Your task to perform on an android device: Search for "macbook air" on costco.com, select the first entry, add it to the cart, then select checkout. Image 0: 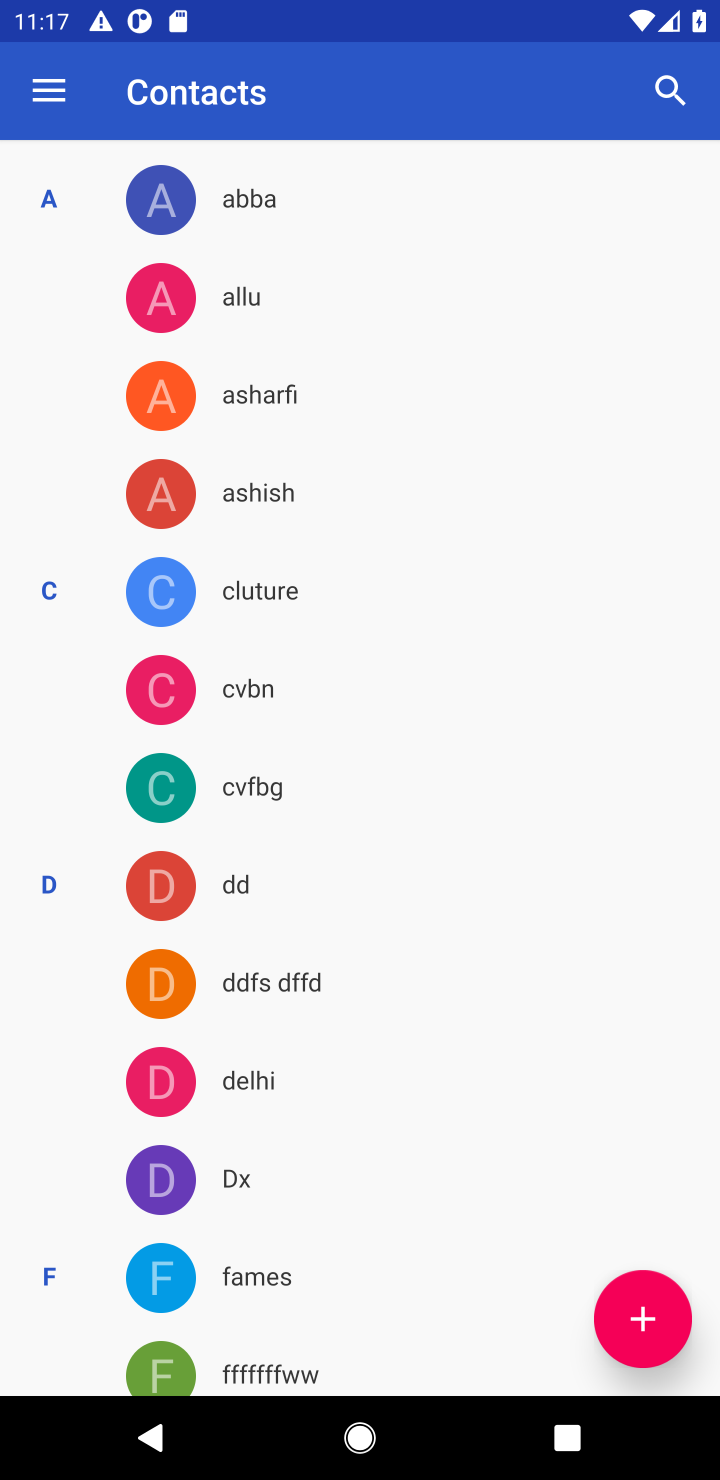
Step 0: press home button
Your task to perform on an android device: Search for "macbook air" on costco.com, select the first entry, add it to the cart, then select checkout. Image 1: 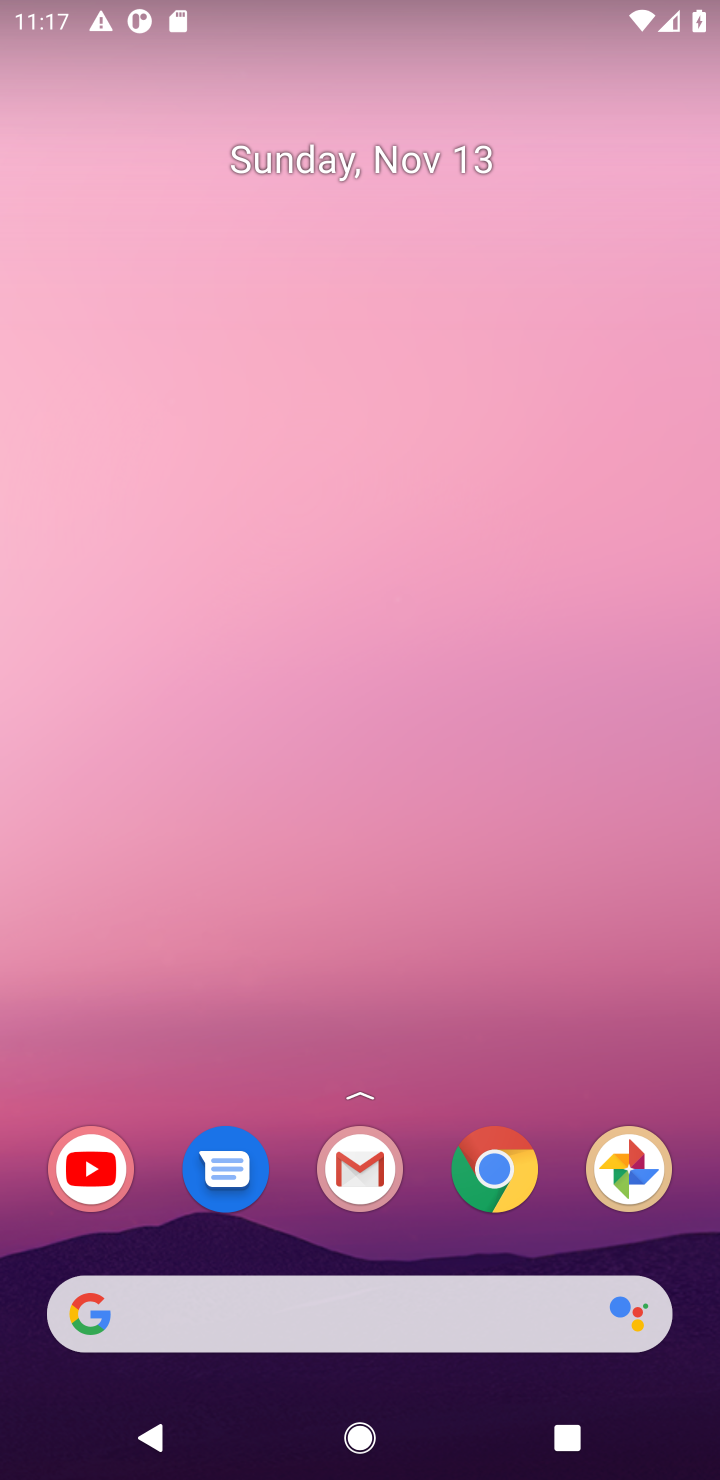
Step 1: drag from (413, 1251) to (384, 255)
Your task to perform on an android device: Search for "macbook air" on costco.com, select the first entry, add it to the cart, then select checkout. Image 2: 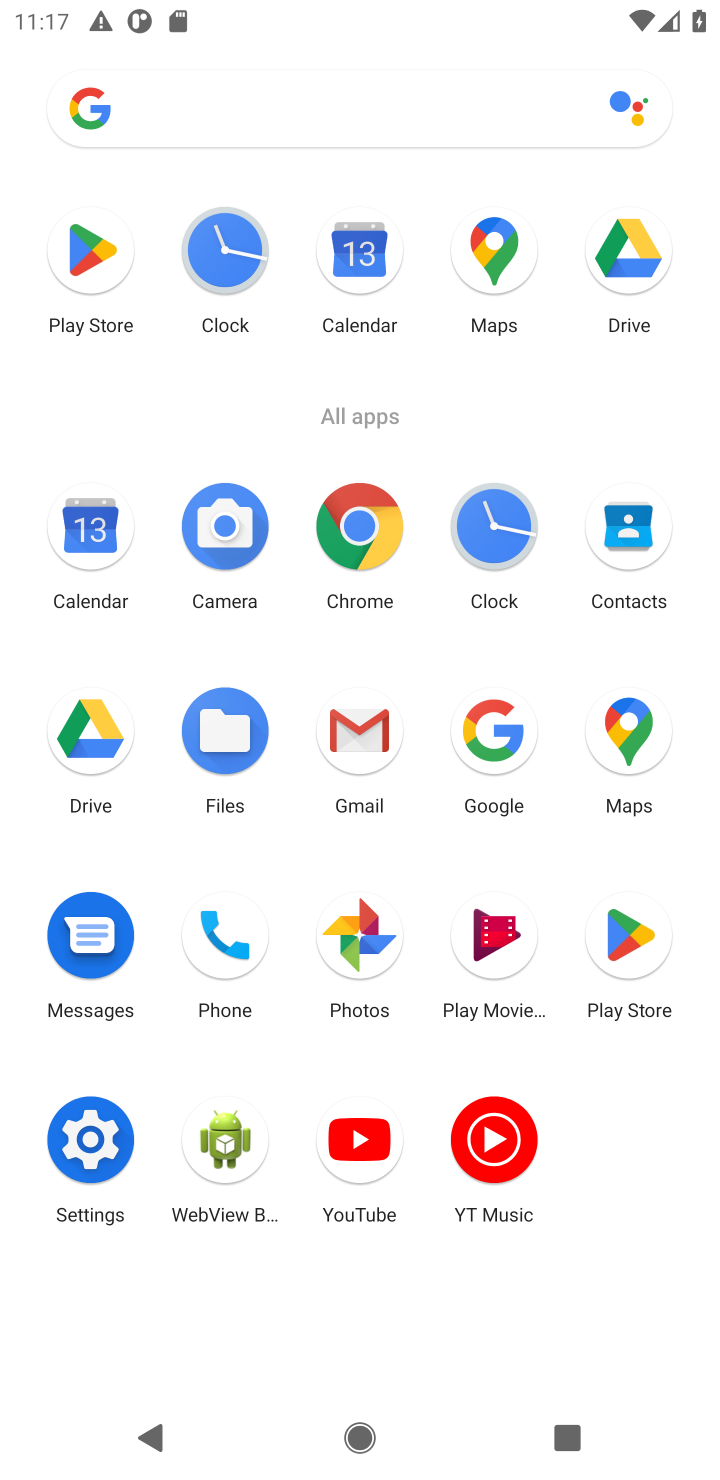
Step 2: click (361, 520)
Your task to perform on an android device: Search for "macbook air" on costco.com, select the first entry, add it to the cart, then select checkout. Image 3: 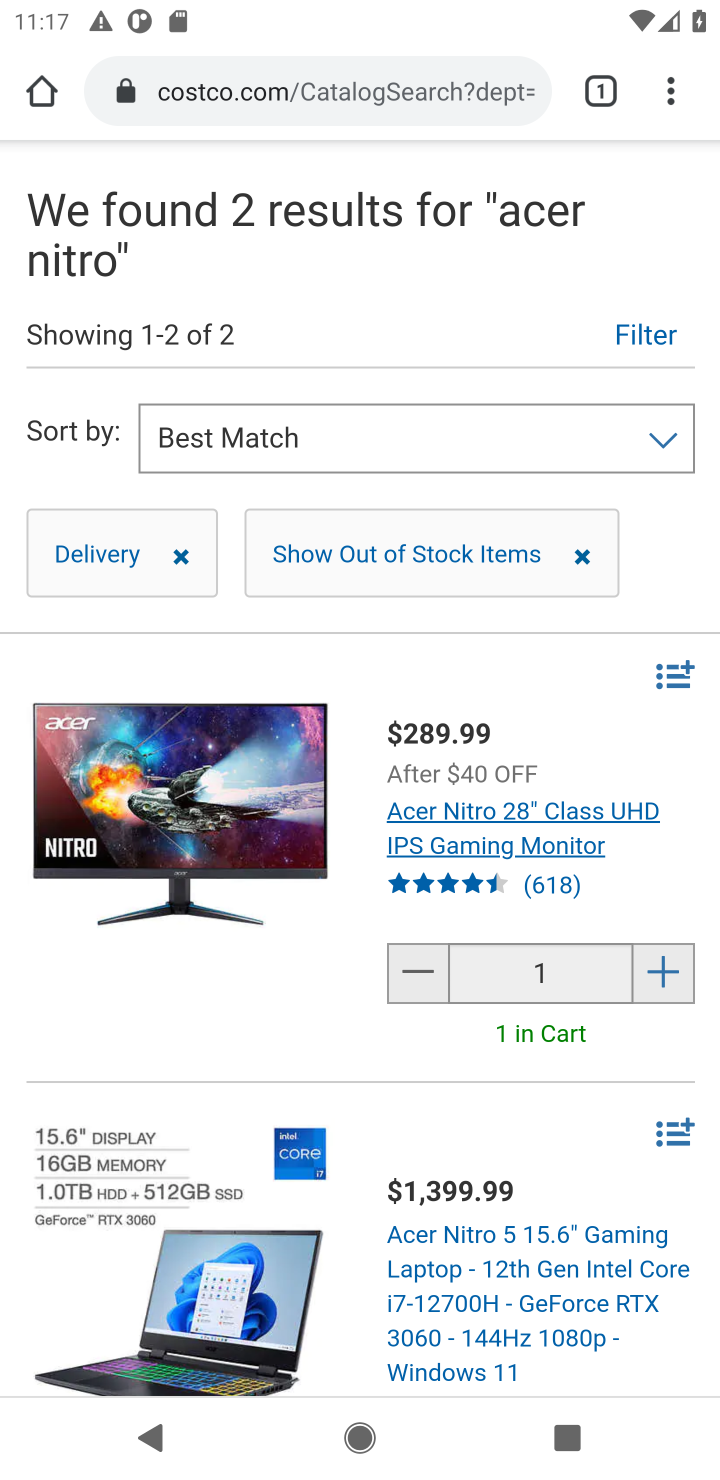
Step 3: click (419, 94)
Your task to perform on an android device: Search for "macbook air" on costco.com, select the first entry, add it to the cart, then select checkout. Image 4: 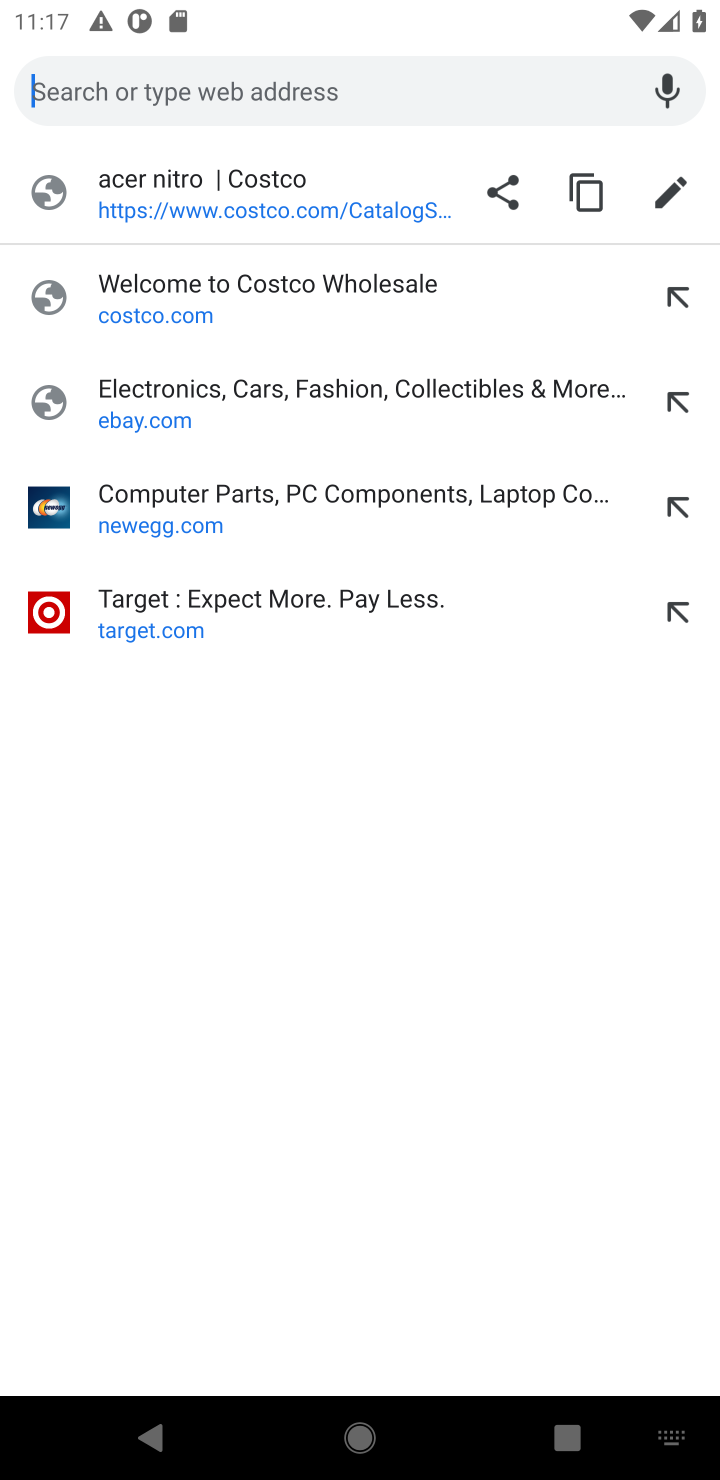
Step 4: type "costco.com"
Your task to perform on an android device: Search for "macbook air" on costco.com, select the first entry, add it to the cart, then select checkout. Image 5: 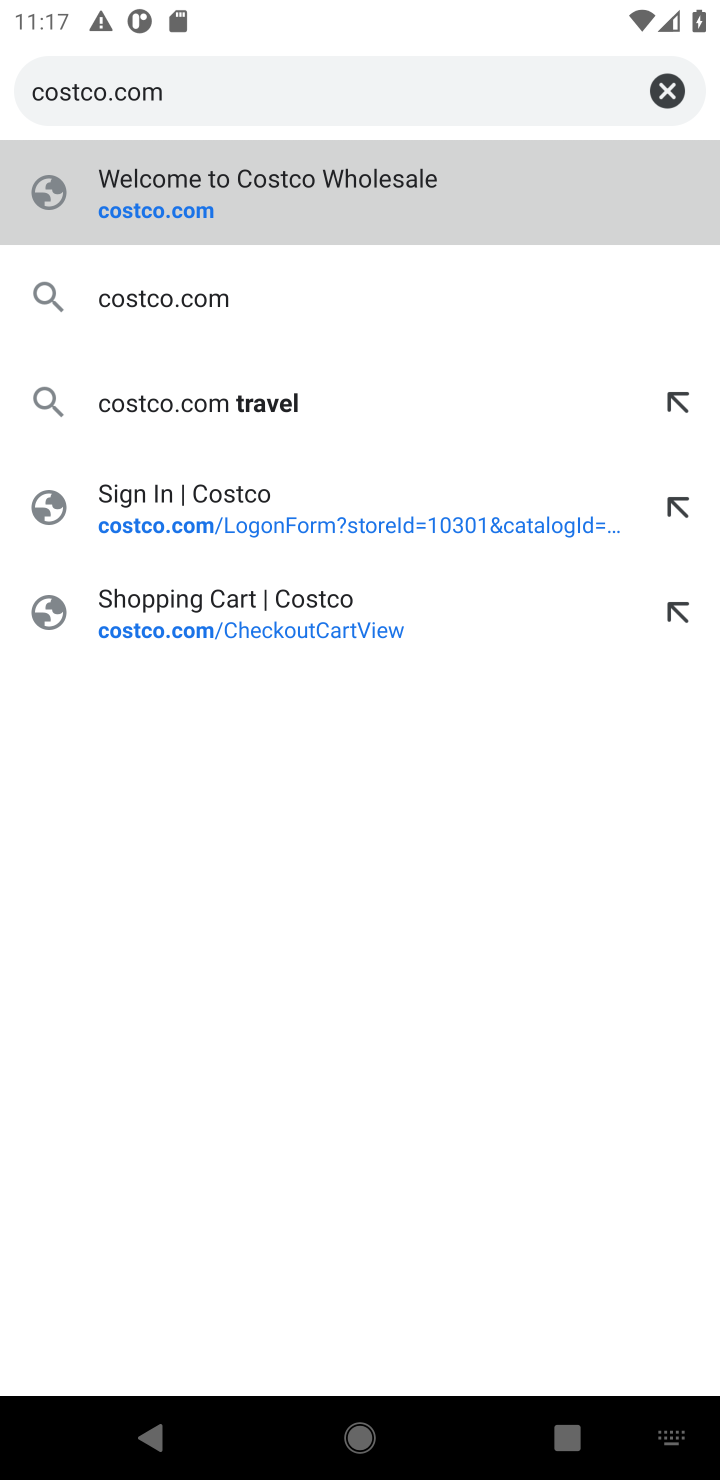
Step 5: press enter
Your task to perform on an android device: Search for "macbook air" on costco.com, select the first entry, add it to the cart, then select checkout. Image 6: 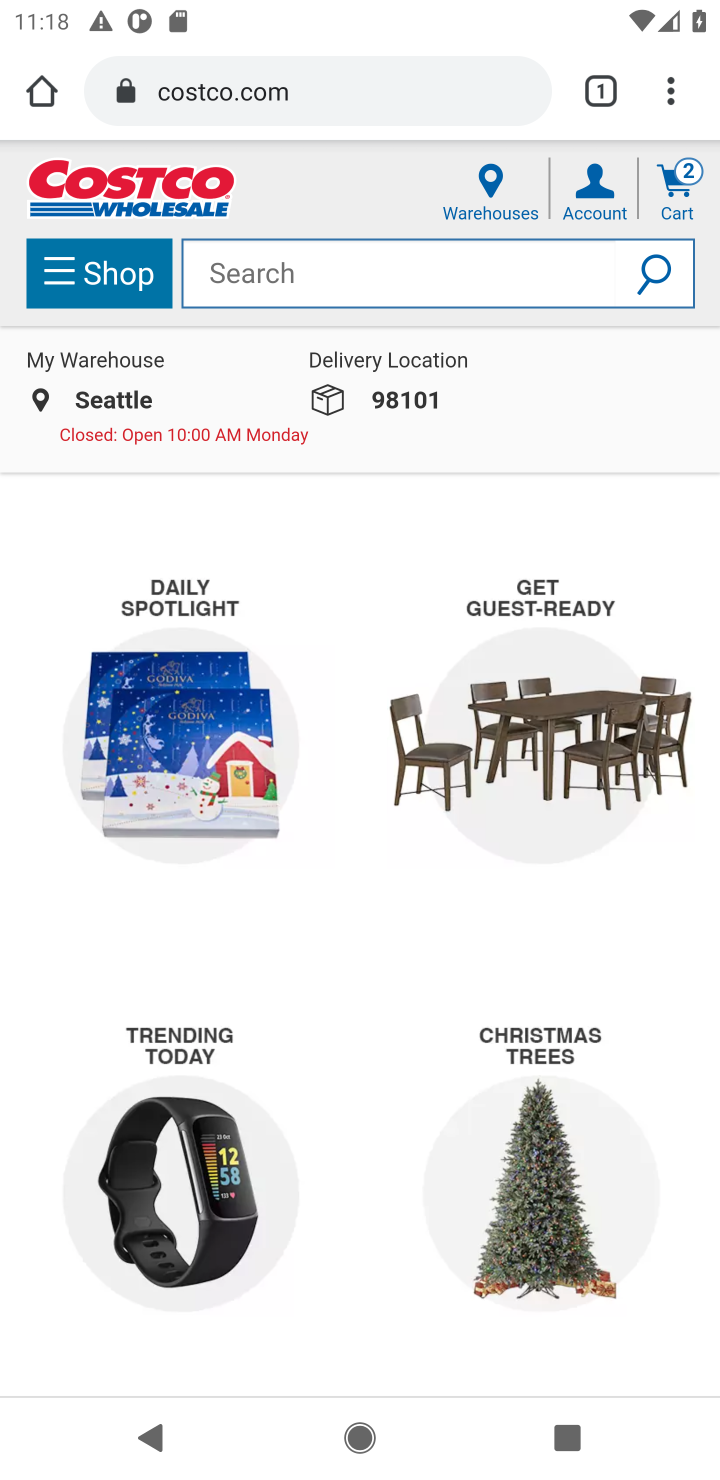
Step 6: click (322, 282)
Your task to perform on an android device: Search for "macbook air" on costco.com, select the first entry, add it to the cart, then select checkout. Image 7: 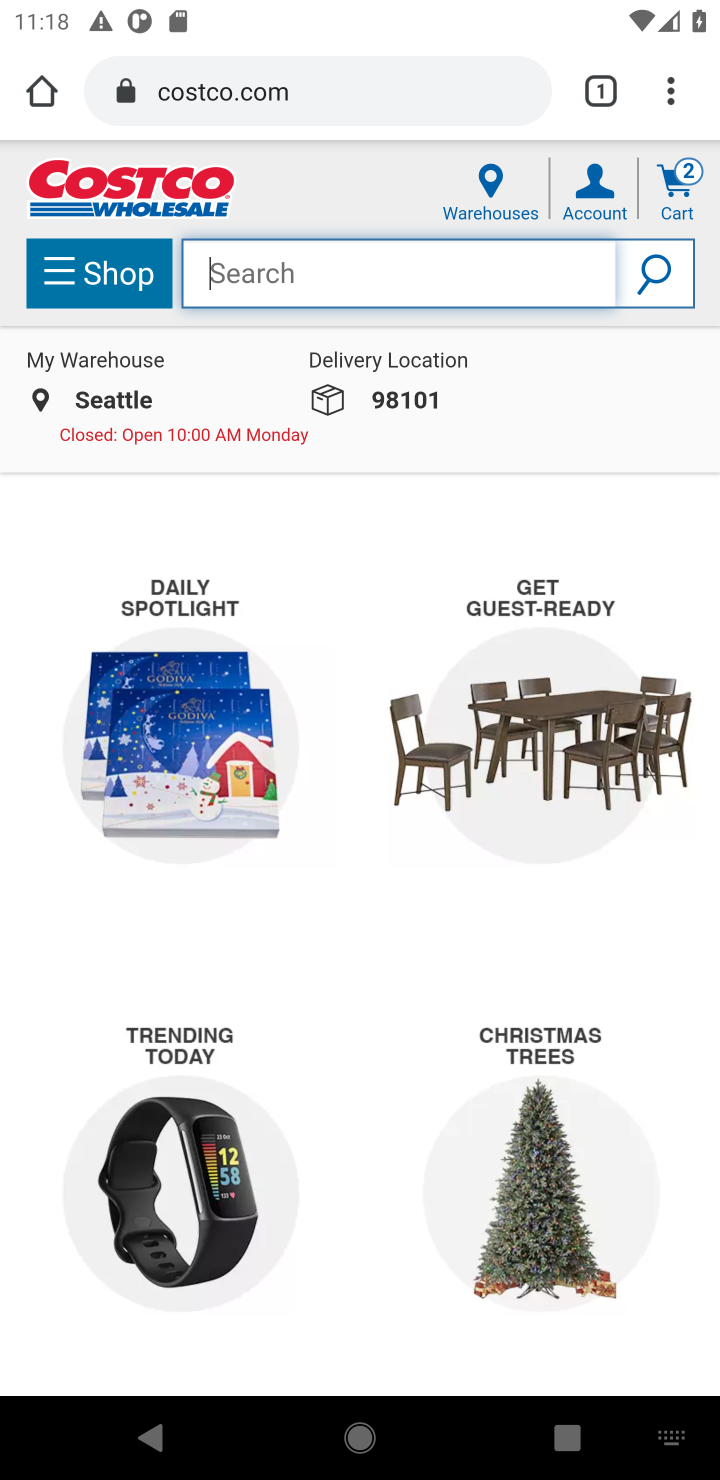
Step 7: type "macbook air"
Your task to perform on an android device: Search for "macbook air" on costco.com, select the first entry, add it to the cart, then select checkout. Image 8: 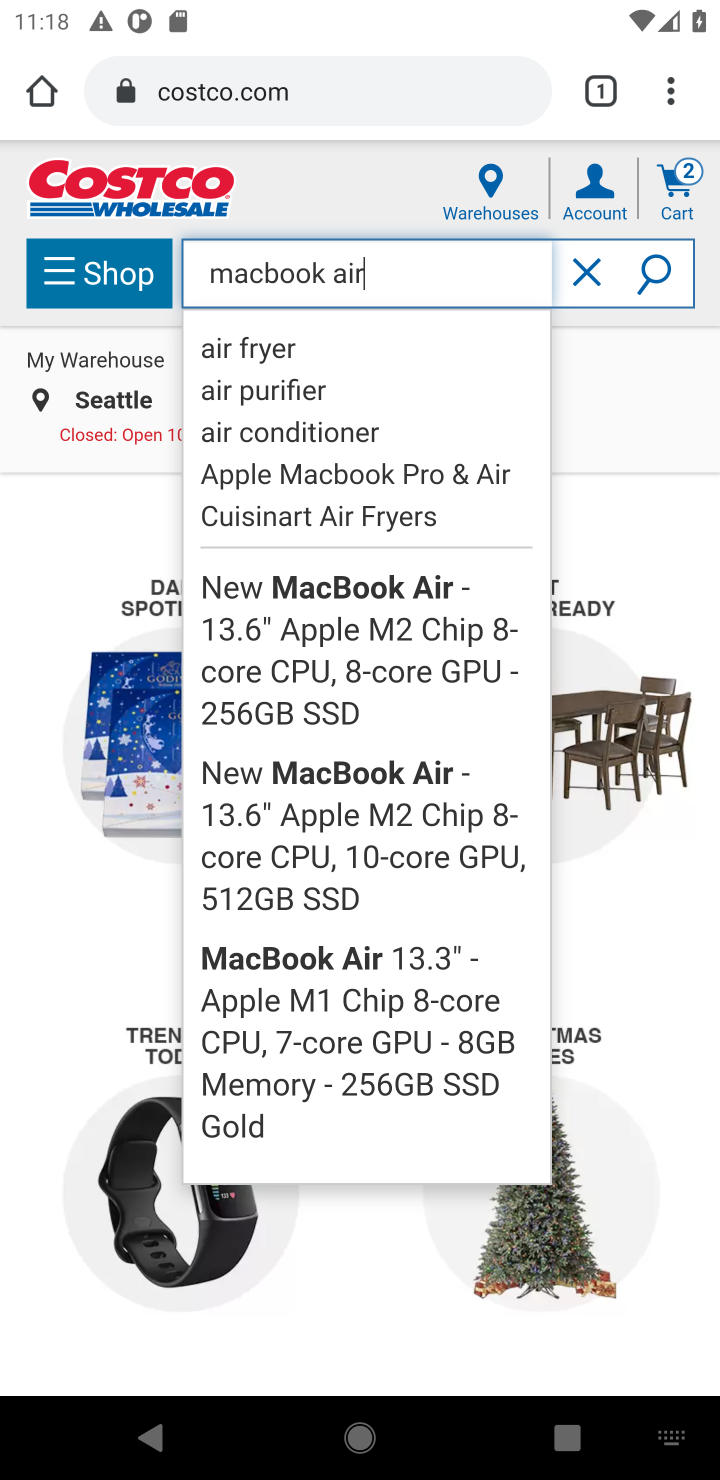
Step 8: press enter
Your task to perform on an android device: Search for "macbook air" on costco.com, select the first entry, add it to the cart, then select checkout. Image 9: 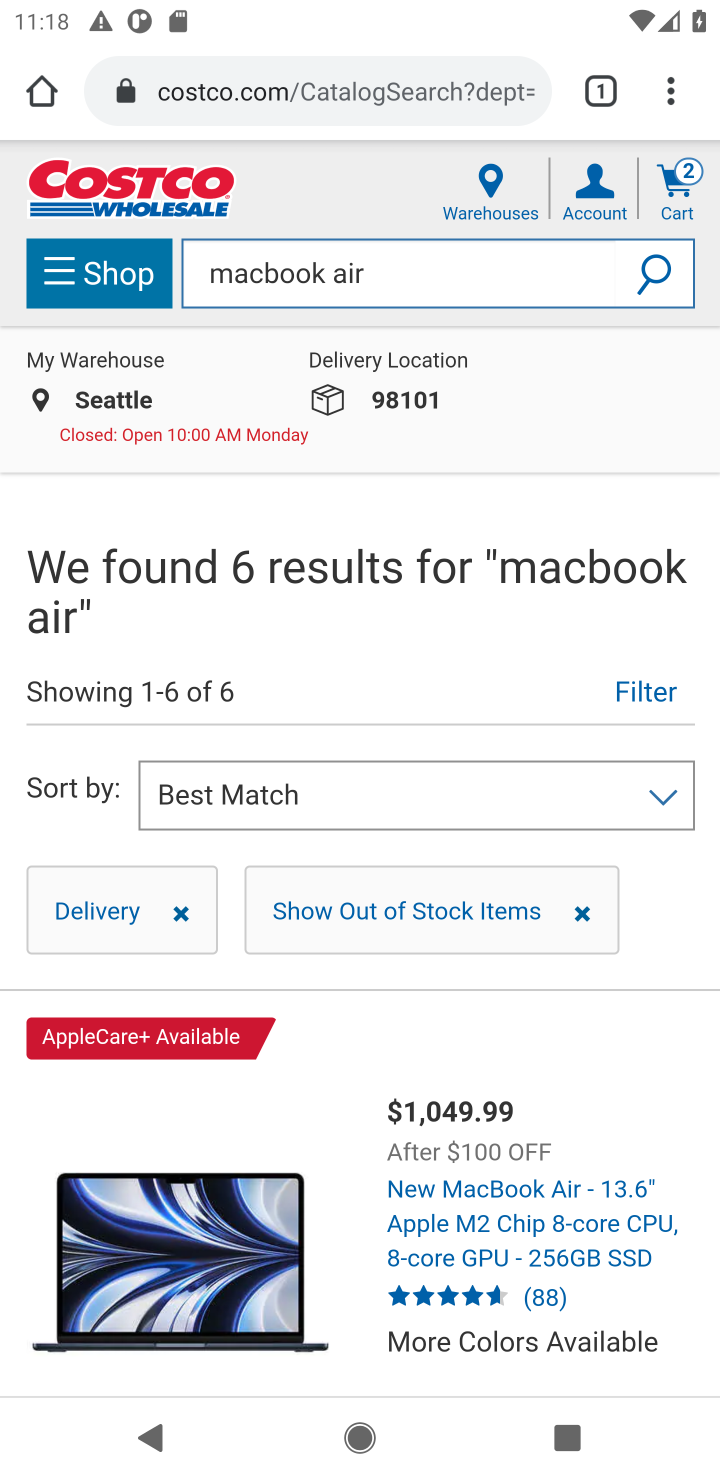
Step 9: click (493, 1249)
Your task to perform on an android device: Search for "macbook air" on costco.com, select the first entry, add it to the cart, then select checkout. Image 10: 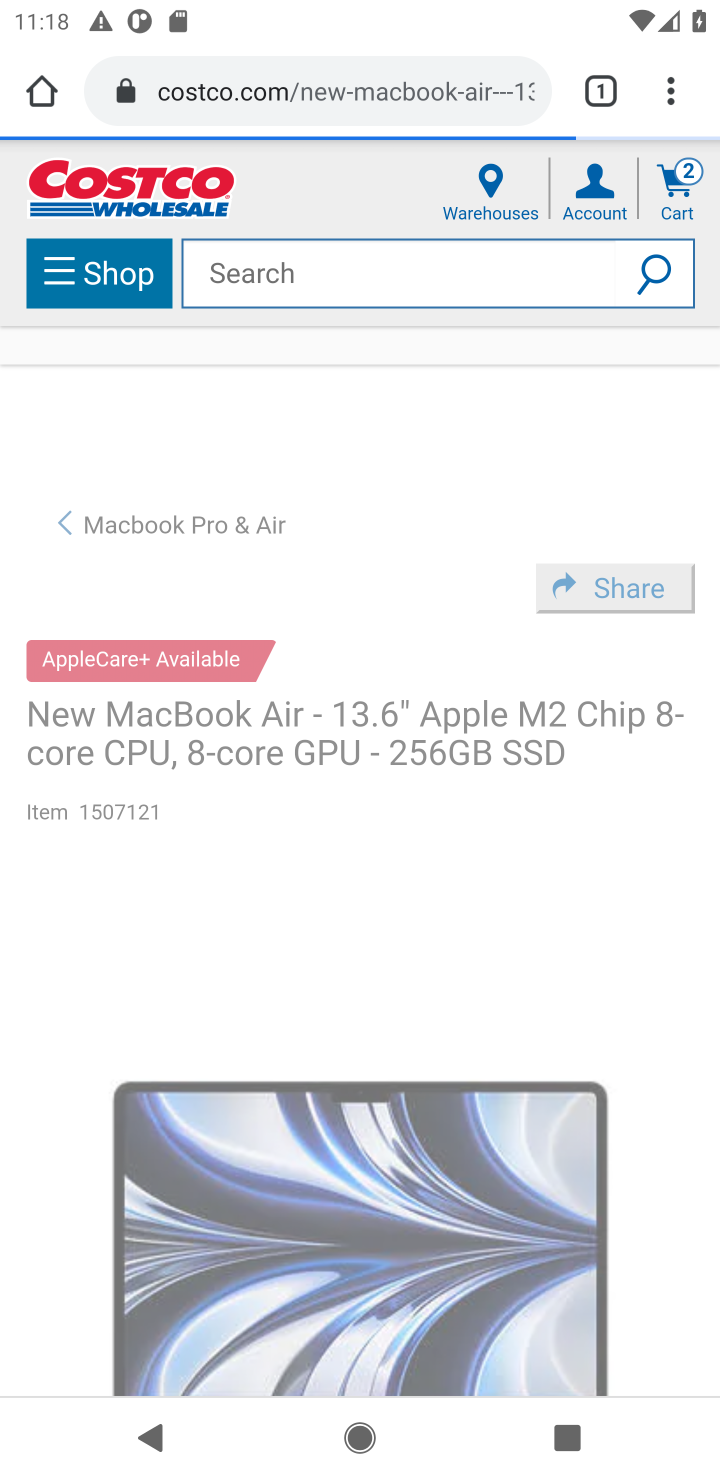
Step 10: drag from (493, 1249) to (463, 196)
Your task to perform on an android device: Search for "macbook air" on costco.com, select the first entry, add it to the cart, then select checkout. Image 11: 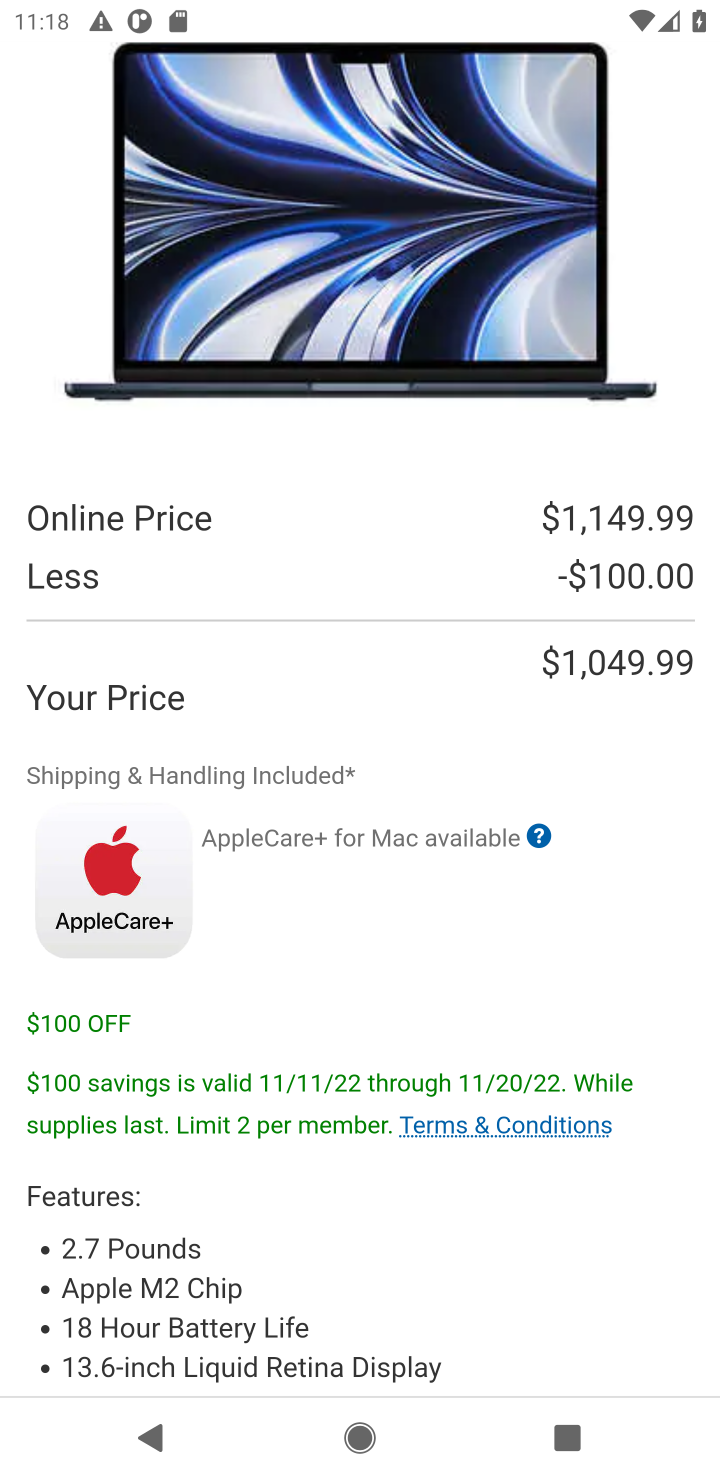
Step 11: drag from (355, 1099) to (413, 186)
Your task to perform on an android device: Search for "macbook air" on costco.com, select the first entry, add it to the cart, then select checkout. Image 12: 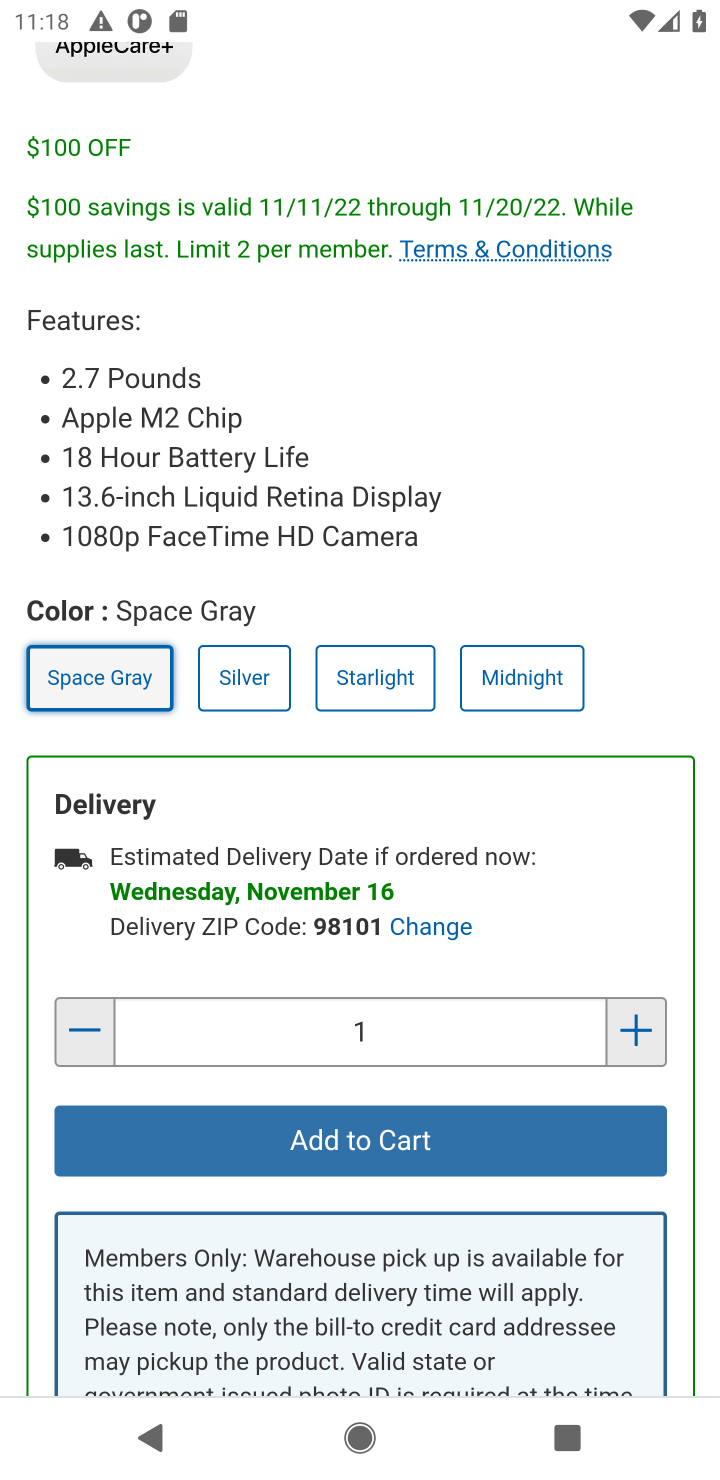
Step 12: click (389, 1132)
Your task to perform on an android device: Search for "macbook air" on costco.com, select the first entry, add it to the cart, then select checkout. Image 13: 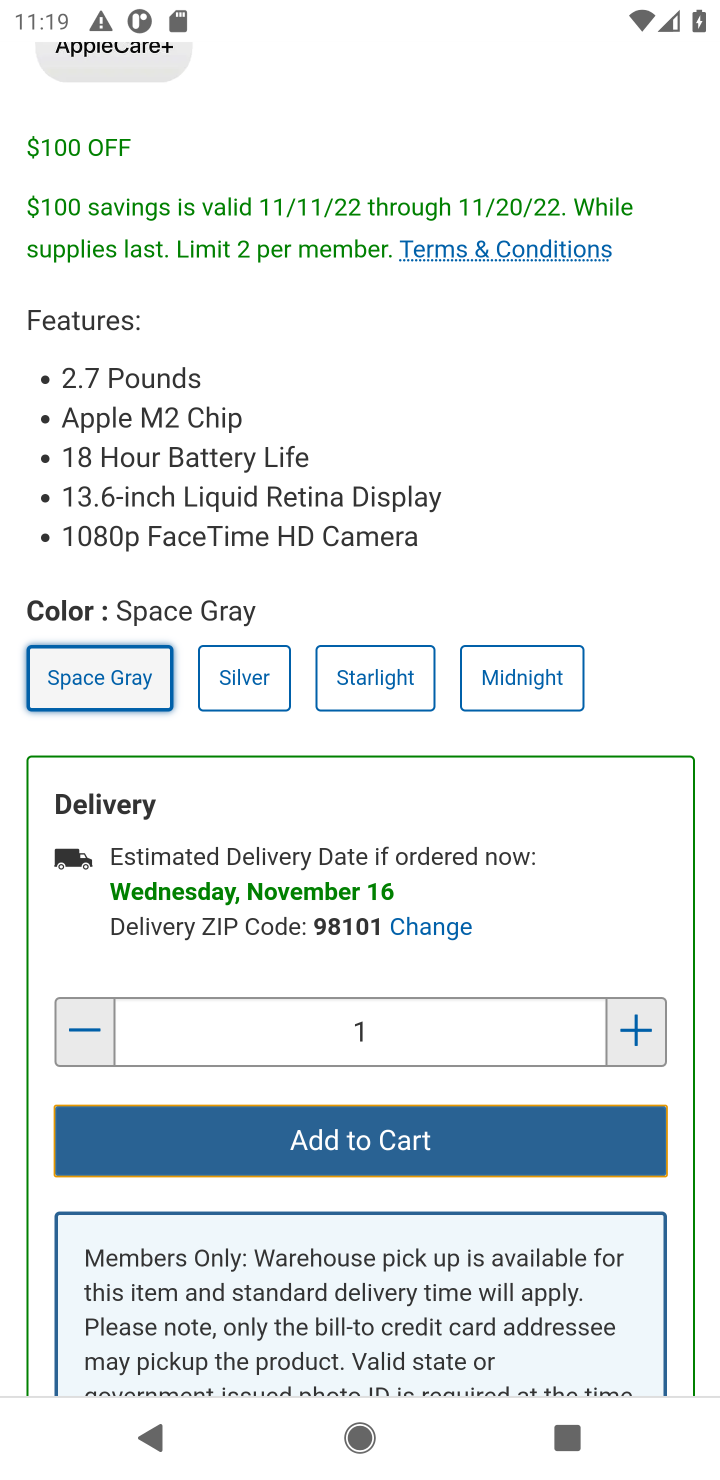
Step 13: click (404, 1145)
Your task to perform on an android device: Search for "macbook air" on costco.com, select the first entry, add it to the cart, then select checkout. Image 14: 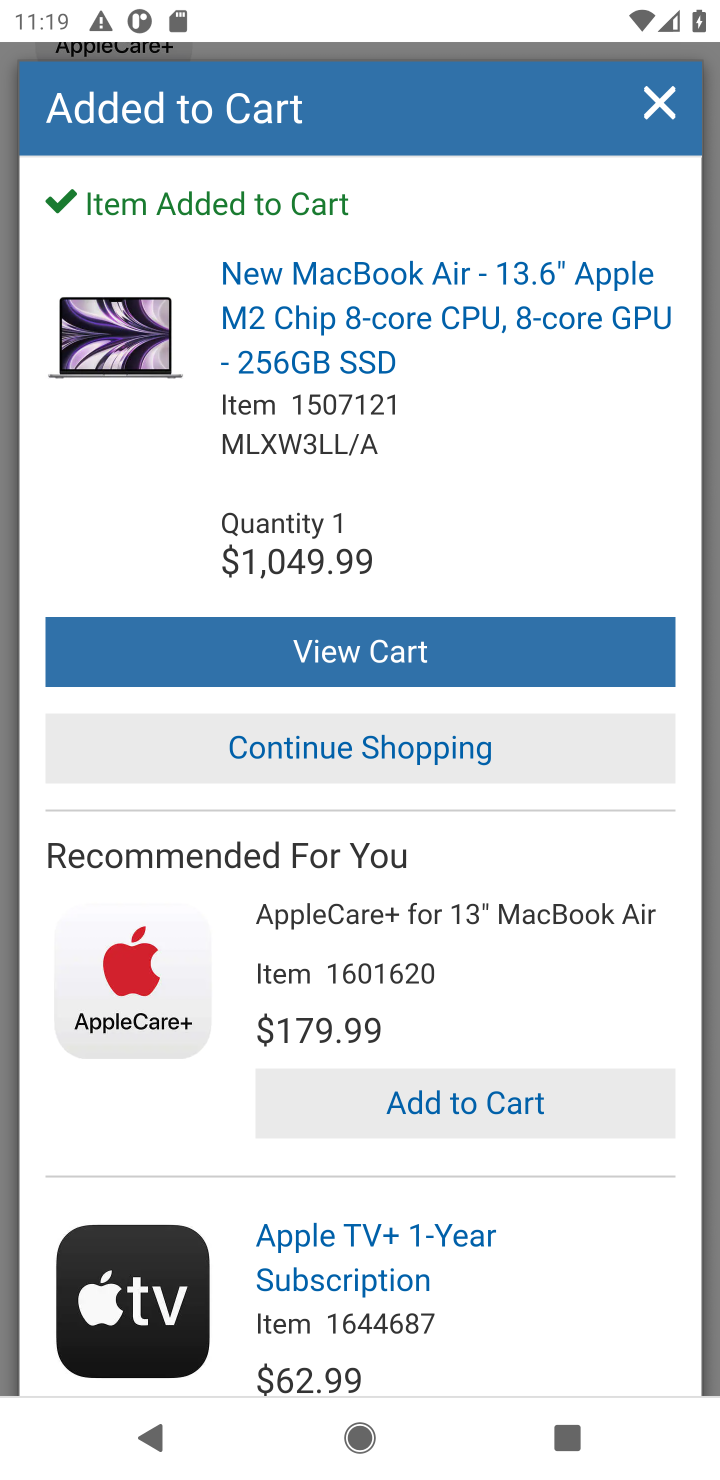
Step 14: click (320, 647)
Your task to perform on an android device: Search for "macbook air" on costco.com, select the first entry, add it to the cart, then select checkout. Image 15: 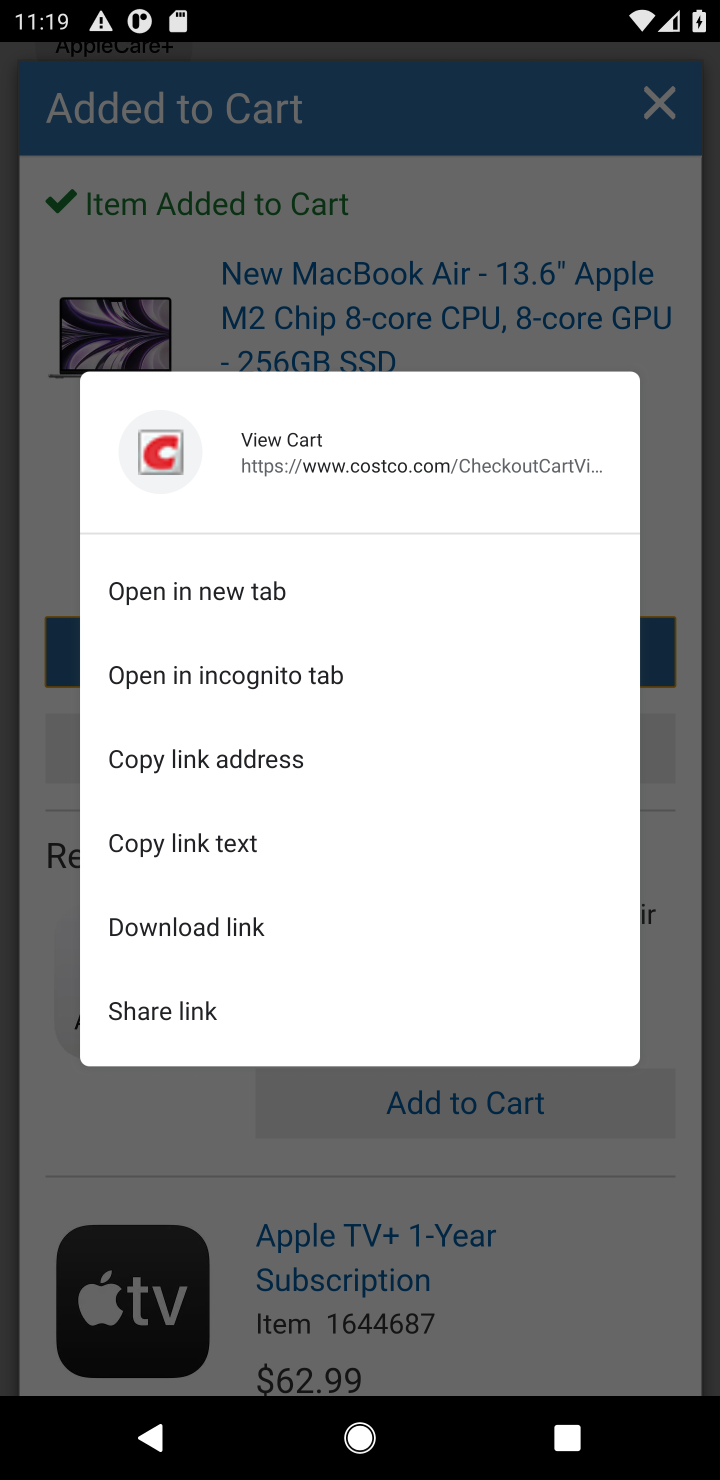
Step 15: click (450, 308)
Your task to perform on an android device: Search for "macbook air" on costco.com, select the first entry, add it to the cart, then select checkout. Image 16: 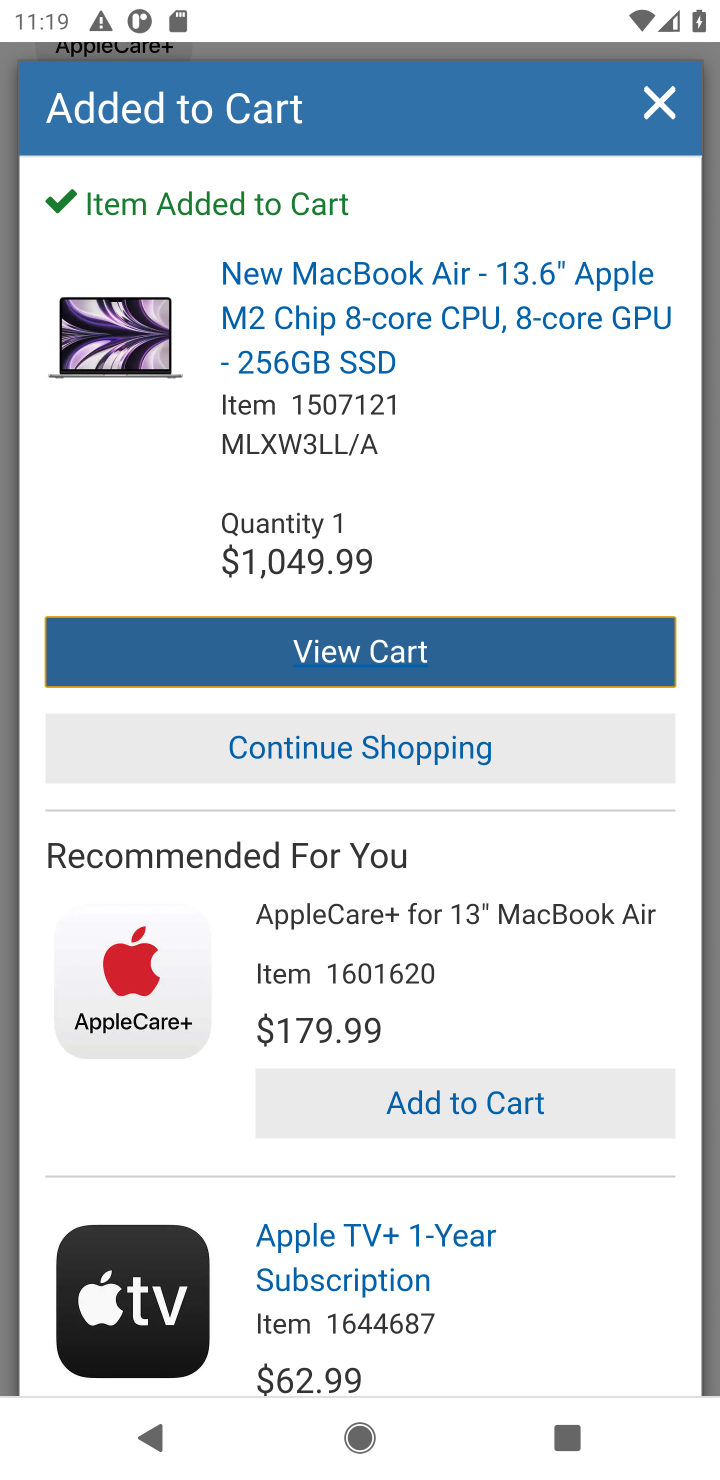
Step 16: click (359, 663)
Your task to perform on an android device: Search for "macbook air" on costco.com, select the first entry, add it to the cart, then select checkout. Image 17: 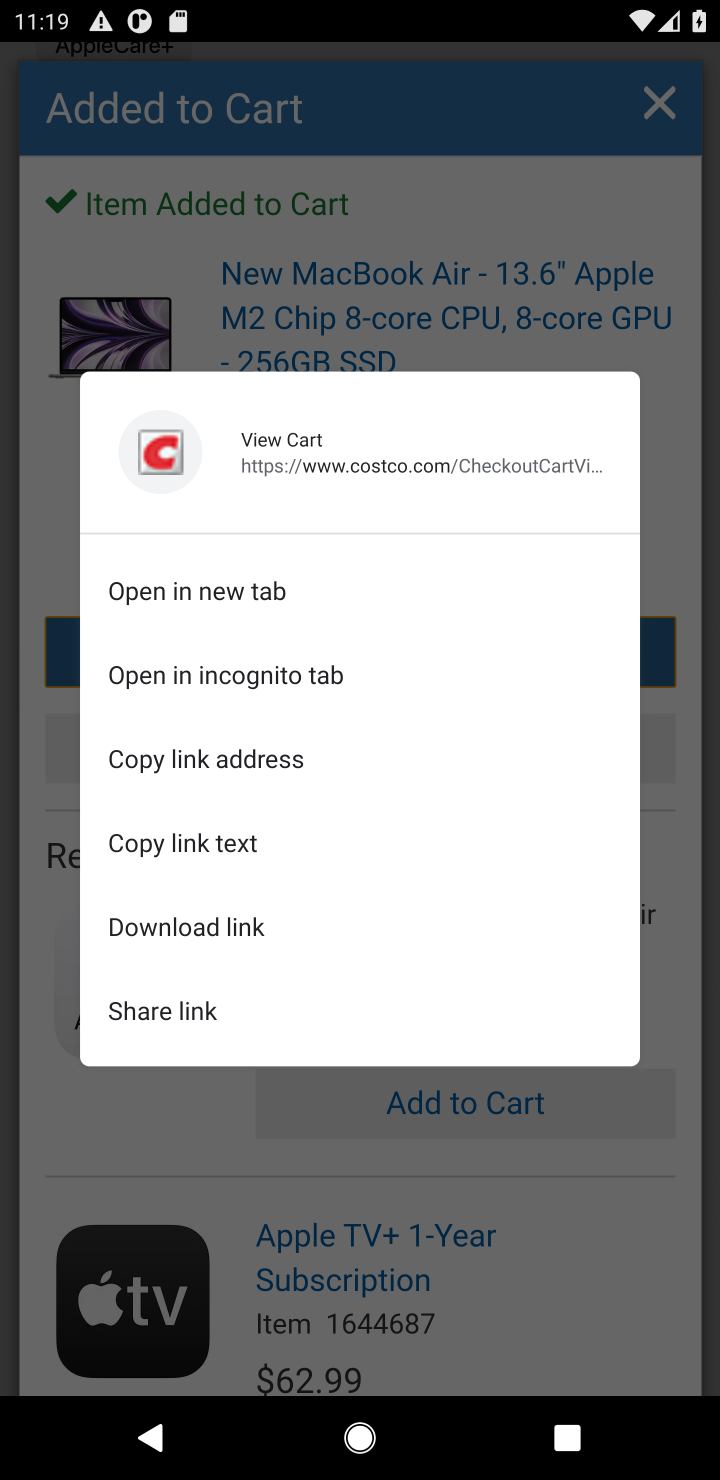
Step 17: click (276, 345)
Your task to perform on an android device: Search for "macbook air" on costco.com, select the first entry, add it to the cart, then select checkout. Image 18: 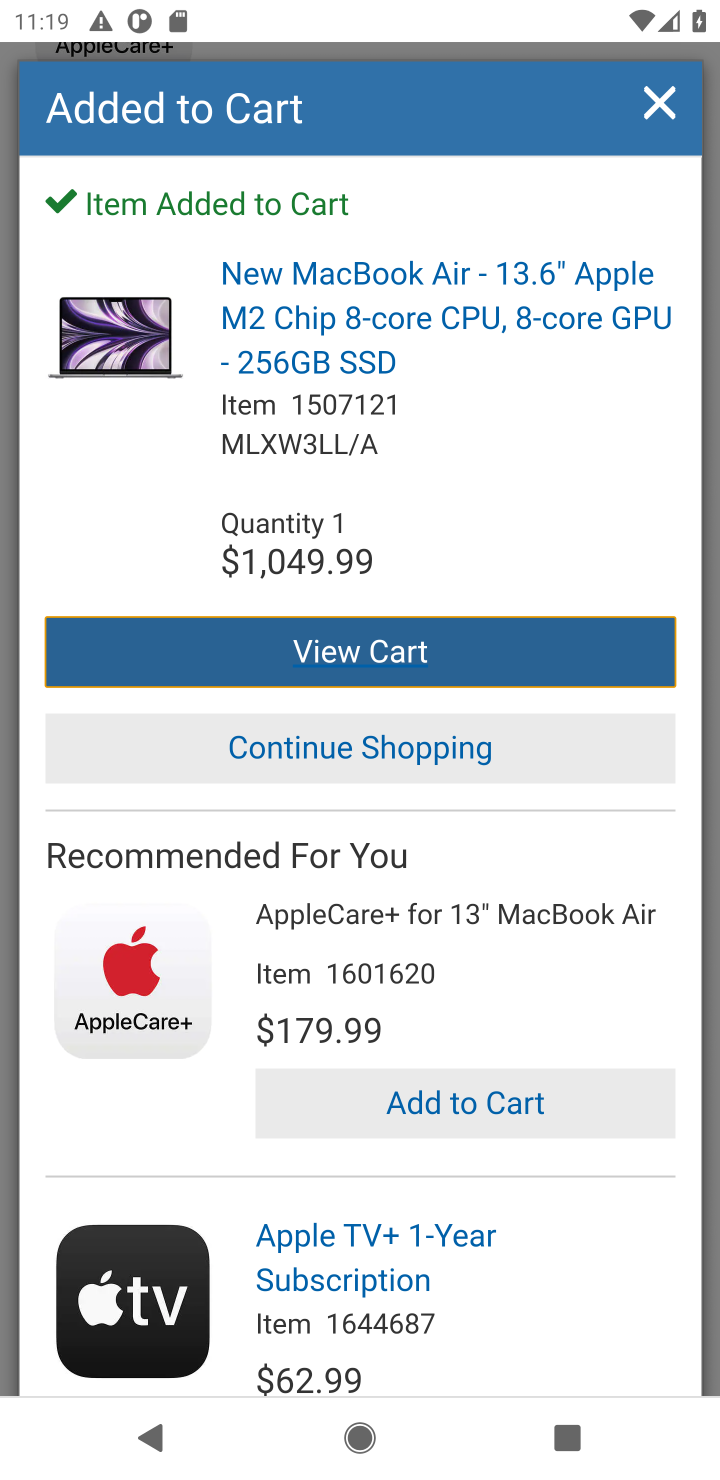
Step 18: click (405, 643)
Your task to perform on an android device: Search for "macbook air" on costco.com, select the first entry, add it to the cart, then select checkout. Image 19: 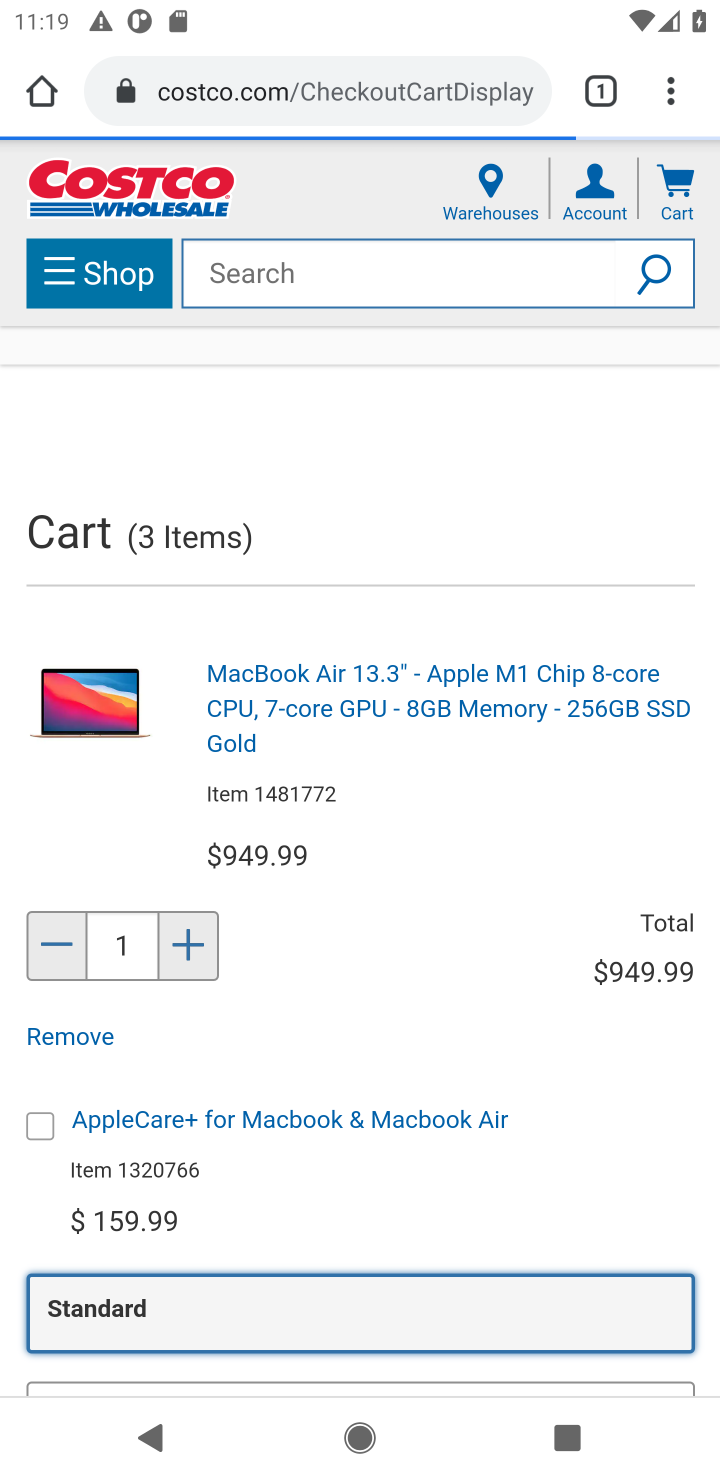
Step 19: drag from (331, 721) to (329, 307)
Your task to perform on an android device: Search for "macbook air" on costco.com, select the first entry, add it to the cart, then select checkout. Image 20: 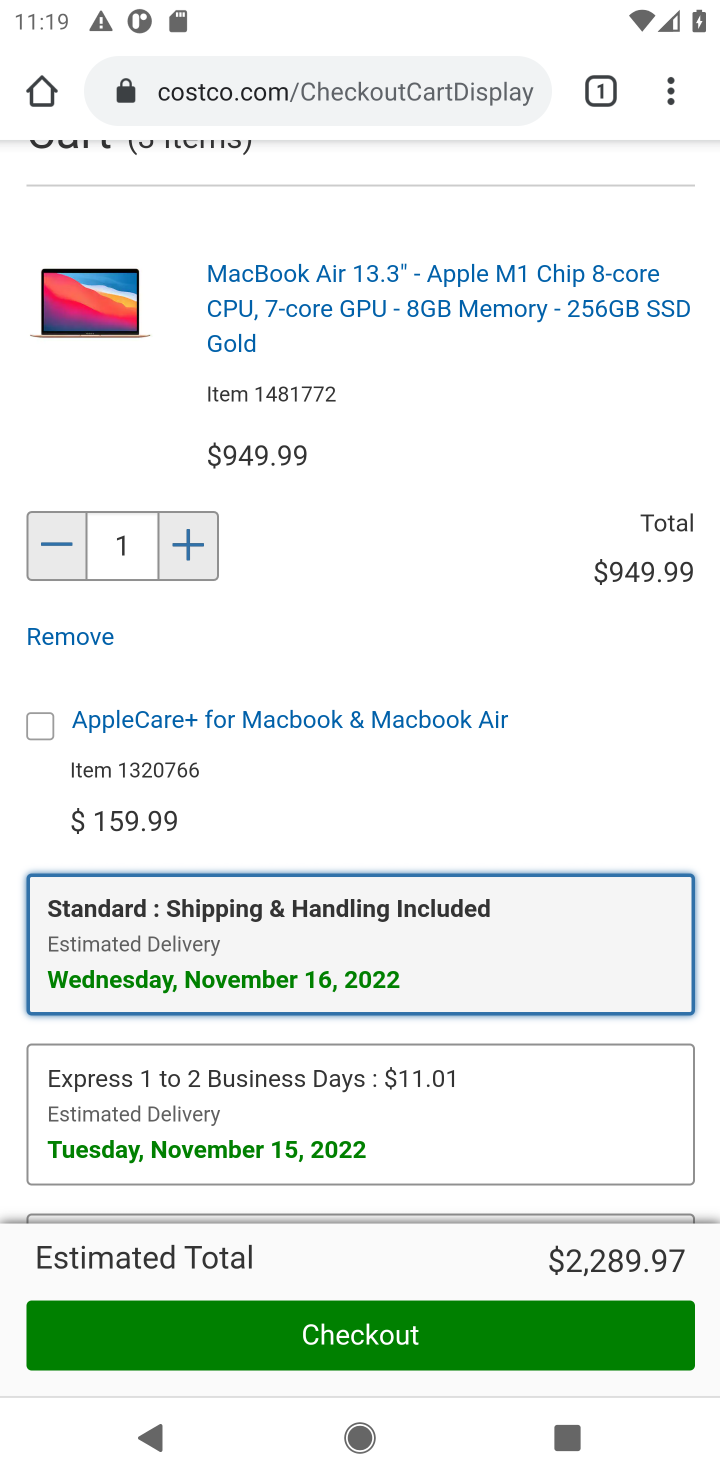
Step 20: click (339, 1334)
Your task to perform on an android device: Search for "macbook air" on costco.com, select the first entry, add it to the cart, then select checkout. Image 21: 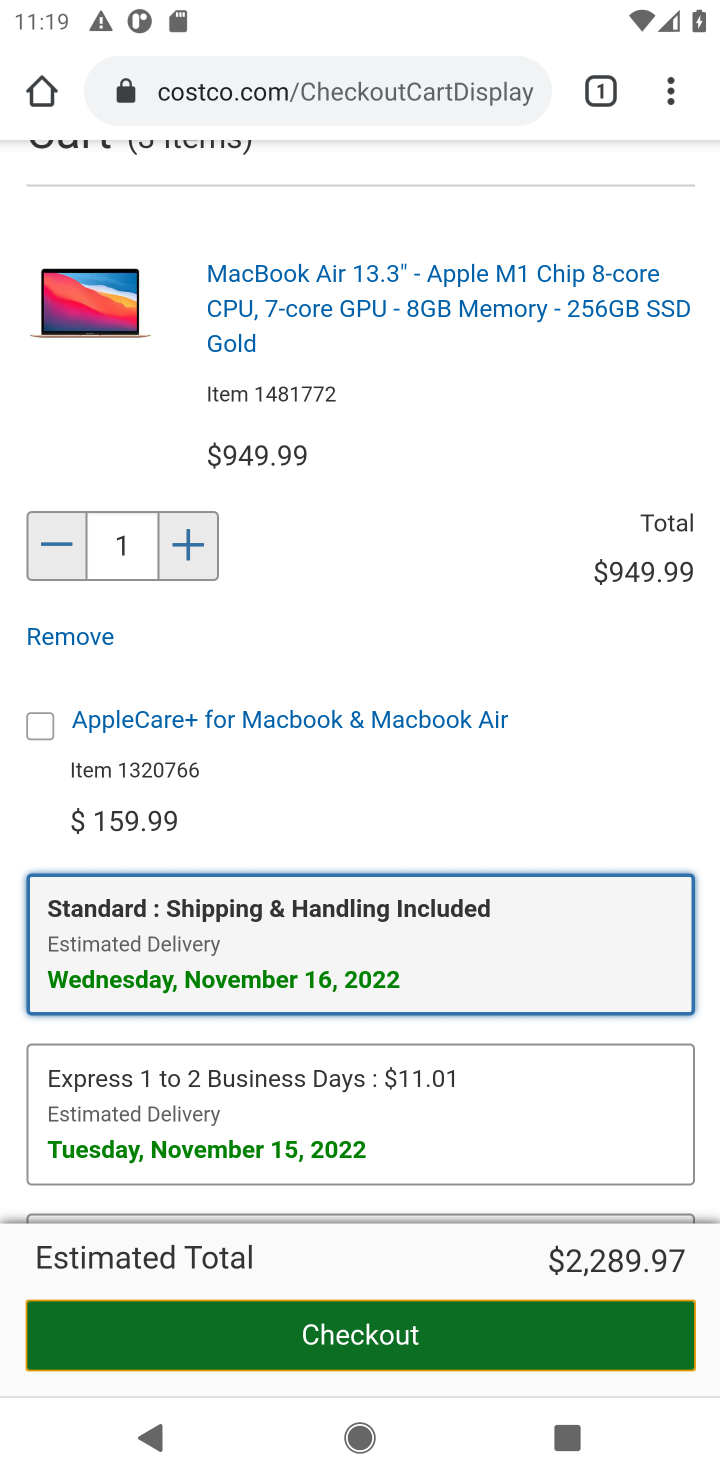
Step 21: click (389, 1338)
Your task to perform on an android device: Search for "macbook air" on costco.com, select the first entry, add it to the cart, then select checkout. Image 22: 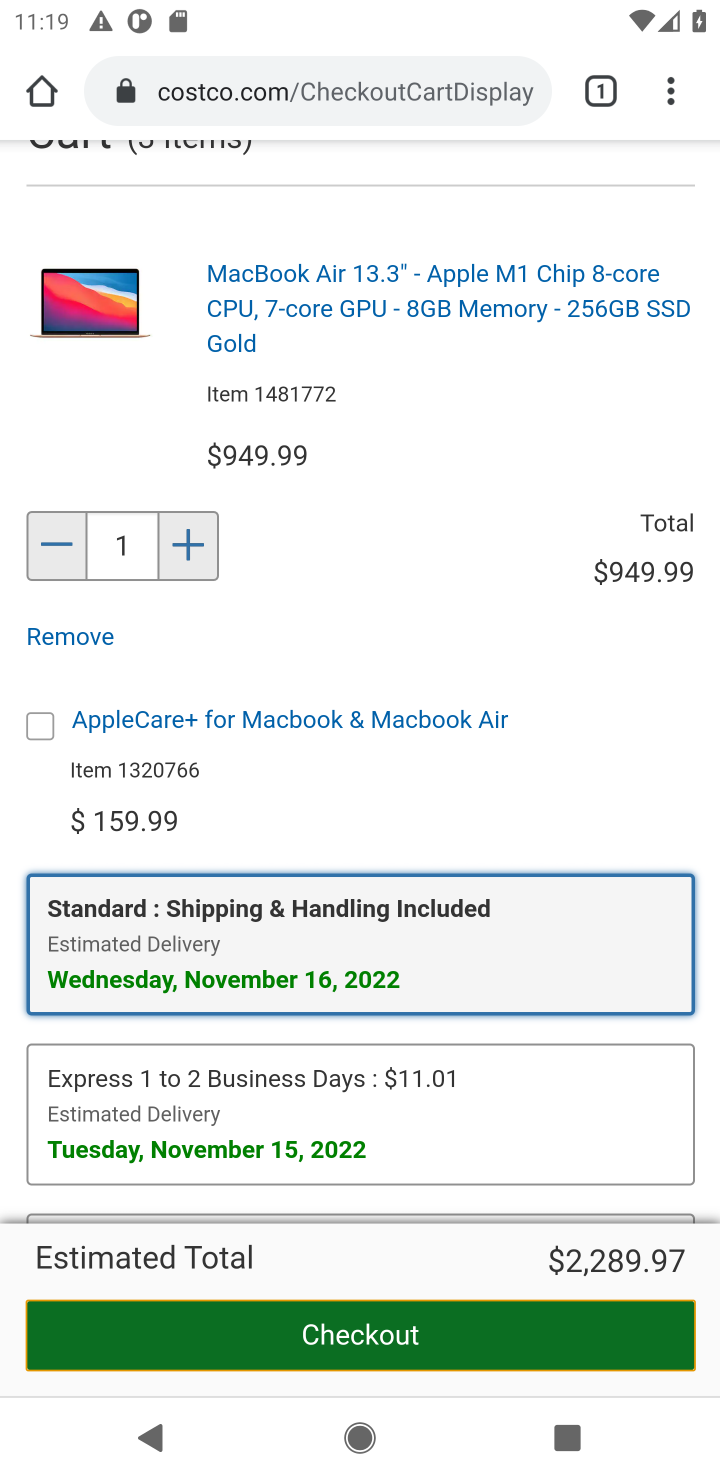
Step 22: click (374, 1342)
Your task to perform on an android device: Search for "macbook air" on costco.com, select the first entry, add it to the cart, then select checkout. Image 23: 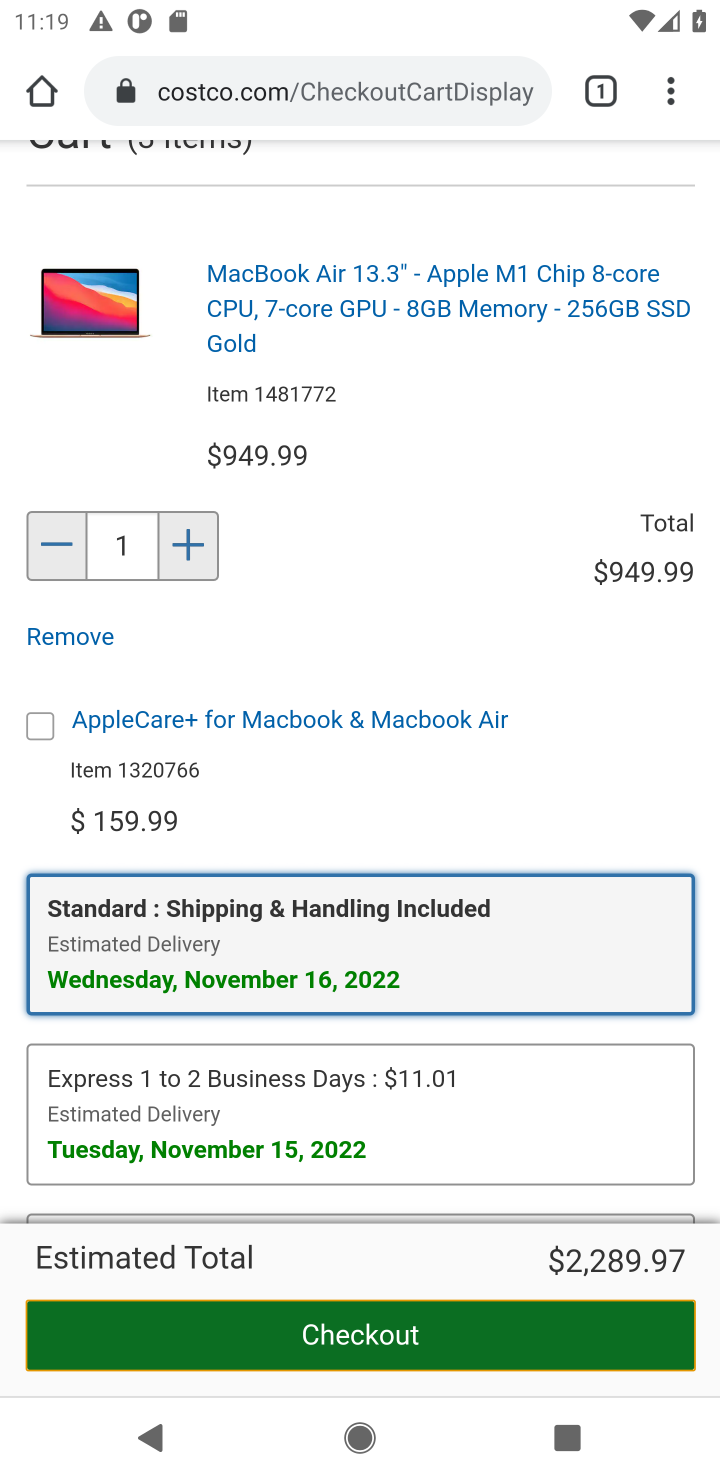
Step 23: click (374, 1342)
Your task to perform on an android device: Search for "macbook air" on costco.com, select the first entry, add it to the cart, then select checkout. Image 24: 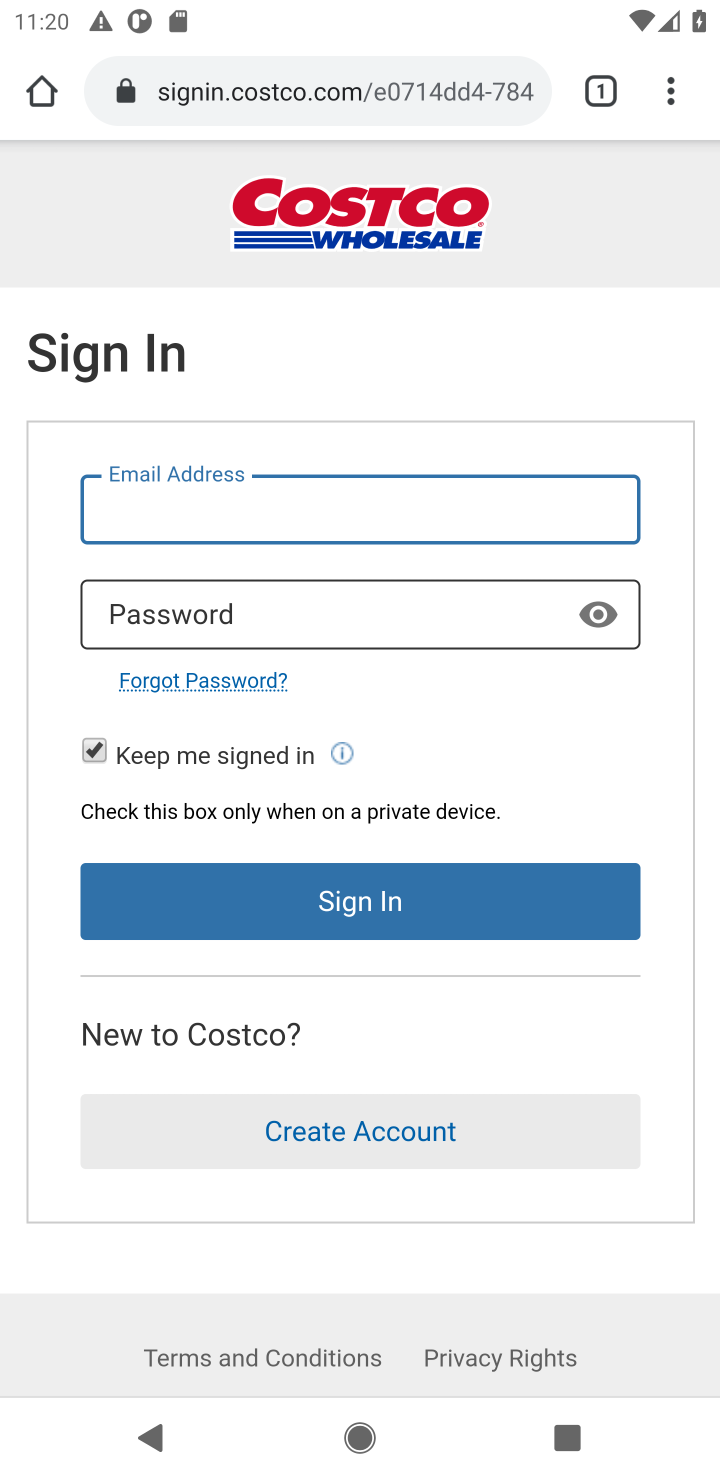
Step 24: task complete